Your task to perform on an android device: Open notification settings Image 0: 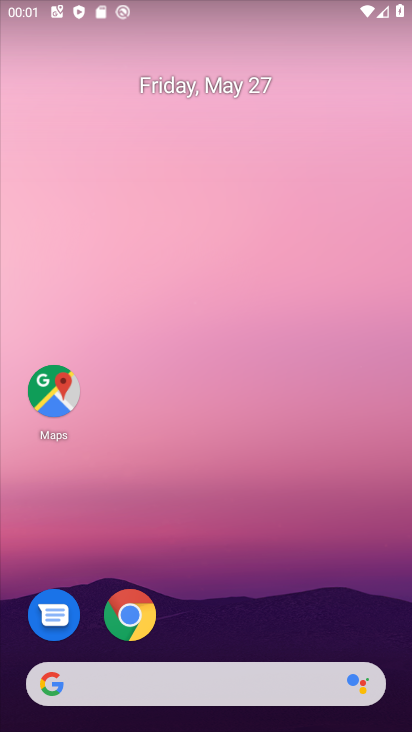
Step 0: press home button
Your task to perform on an android device: Open notification settings Image 1: 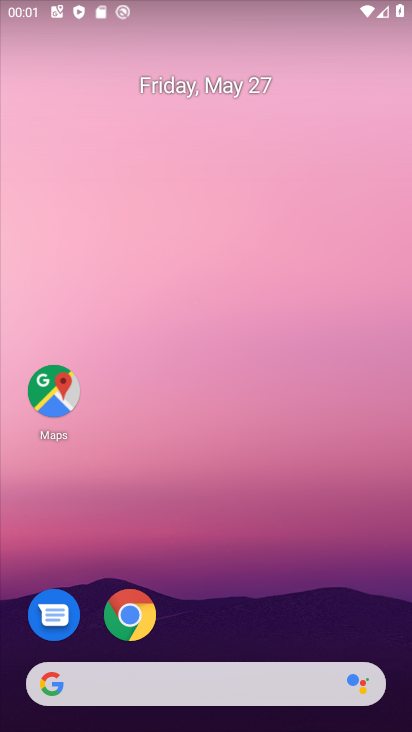
Step 1: drag from (312, 612) to (289, 172)
Your task to perform on an android device: Open notification settings Image 2: 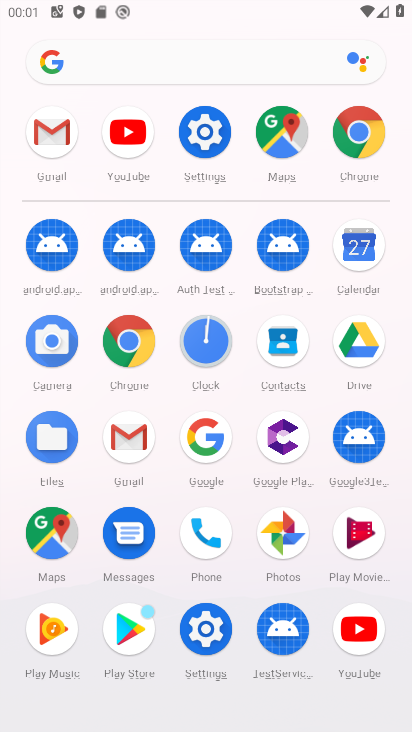
Step 2: click (234, 159)
Your task to perform on an android device: Open notification settings Image 3: 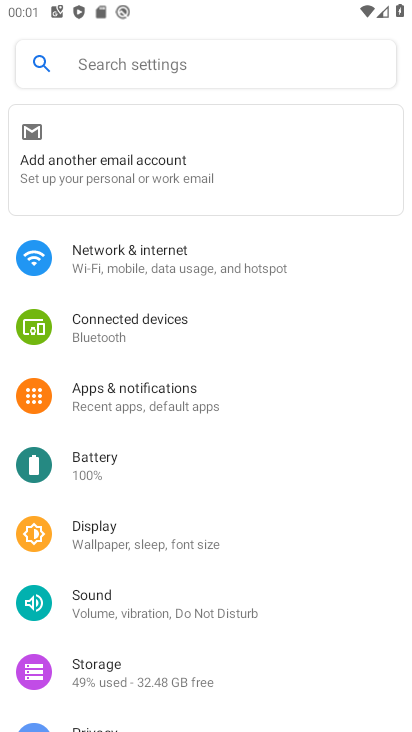
Step 3: click (124, 396)
Your task to perform on an android device: Open notification settings Image 4: 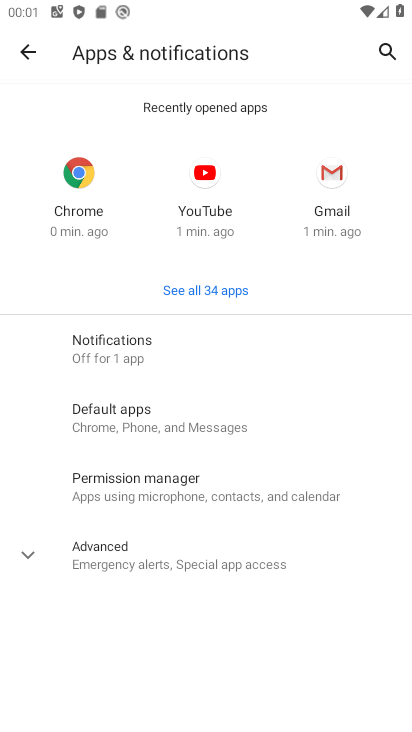
Step 4: task complete